Your task to perform on an android device: Go to wifi settings Image 0: 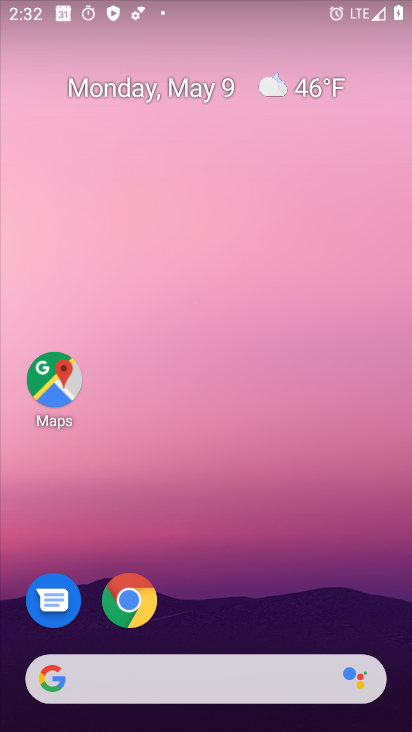
Step 0: drag from (210, 653) to (242, 232)
Your task to perform on an android device: Go to wifi settings Image 1: 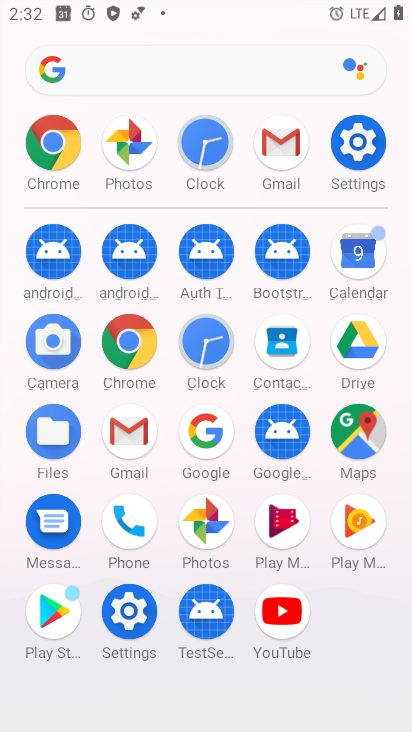
Step 1: click (368, 116)
Your task to perform on an android device: Go to wifi settings Image 2: 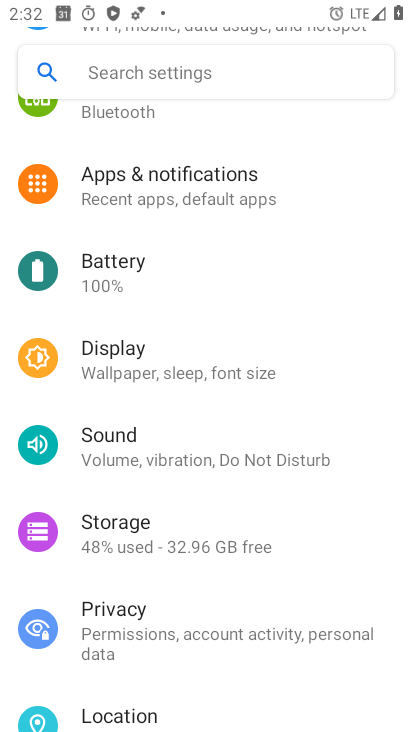
Step 2: drag from (279, 143) to (279, 434)
Your task to perform on an android device: Go to wifi settings Image 3: 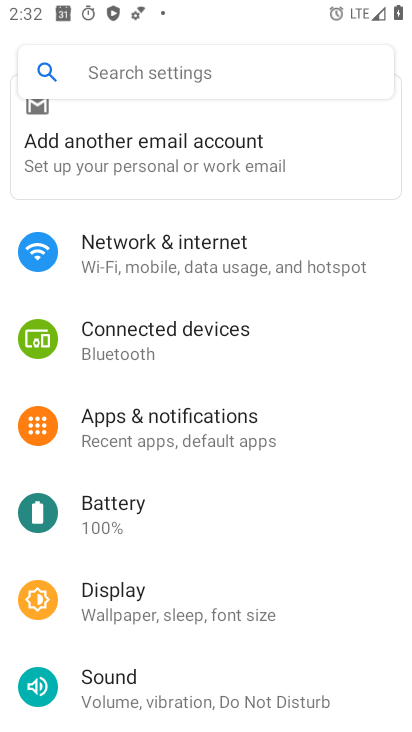
Step 3: click (190, 263)
Your task to perform on an android device: Go to wifi settings Image 4: 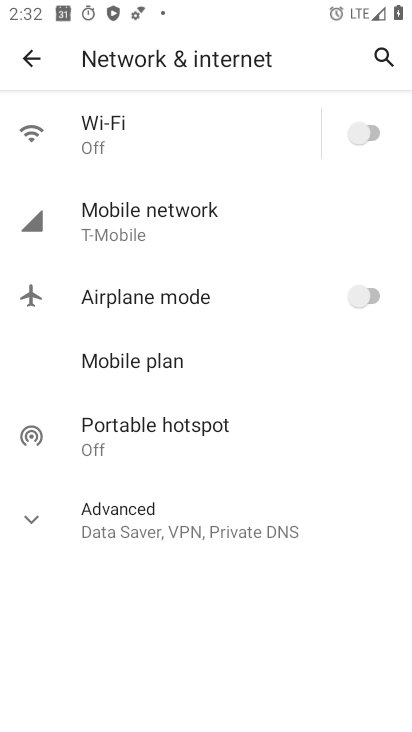
Step 4: click (144, 141)
Your task to perform on an android device: Go to wifi settings Image 5: 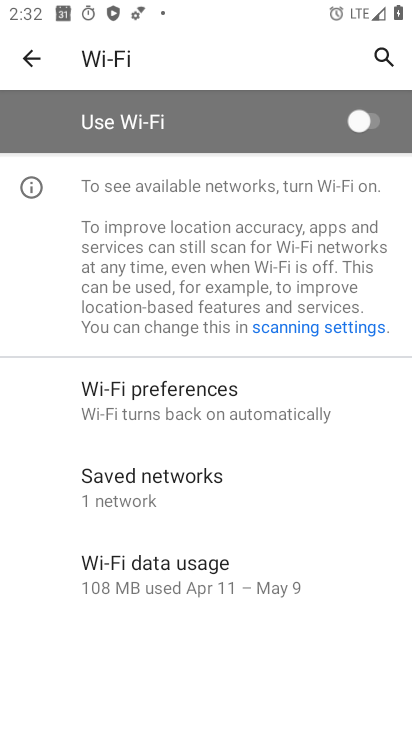
Step 5: task complete